Your task to perform on an android device: check android version Image 0: 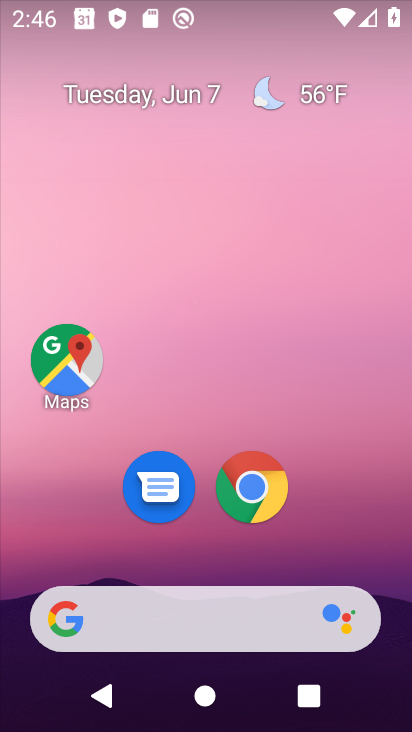
Step 0: drag from (324, 507) to (316, 23)
Your task to perform on an android device: check android version Image 1: 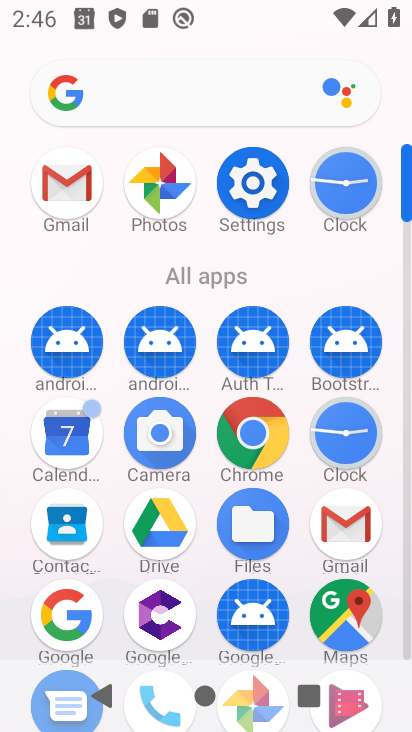
Step 1: click (256, 199)
Your task to perform on an android device: check android version Image 2: 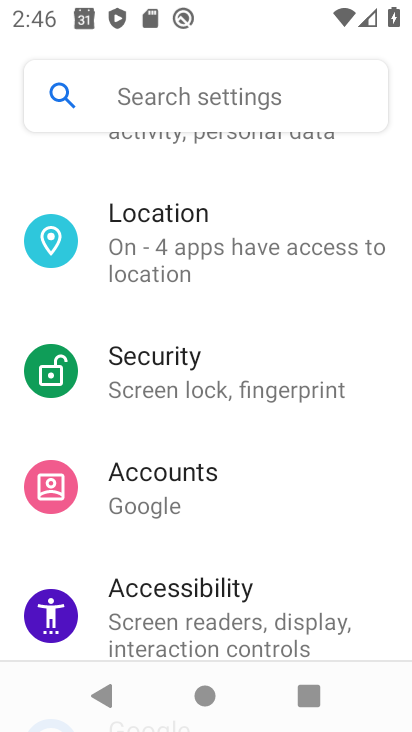
Step 2: drag from (331, 547) to (320, 54)
Your task to perform on an android device: check android version Image 3: 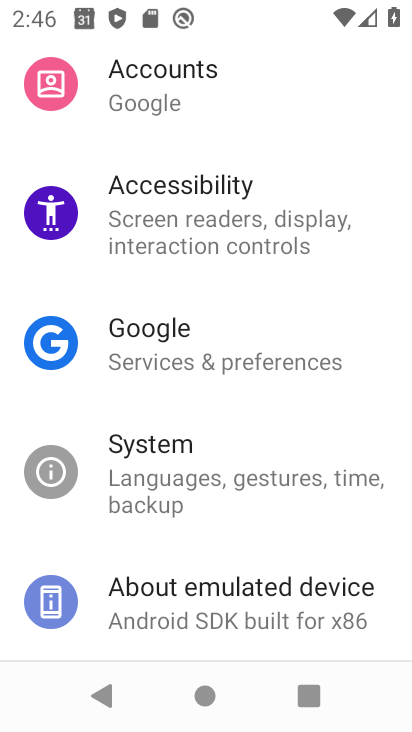
Step 3: click (242, 617)
Your task to perform on an android device: check android version Image 4: 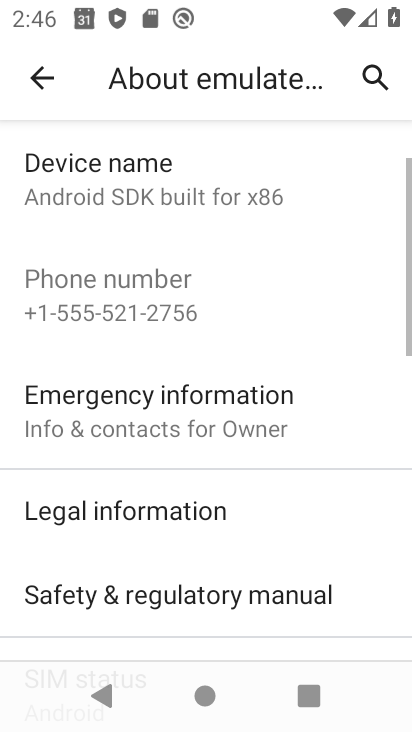
Step 4: task complete